Your task to perform on an android device: Open wifi settings Image 0: 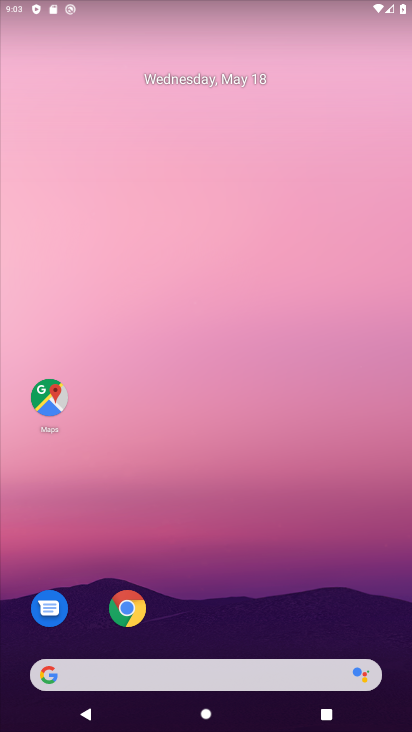
Step 0: drag from (28, 508) to (156, 165)
Your task to perform on an android device: Open wifi settings Image 1: 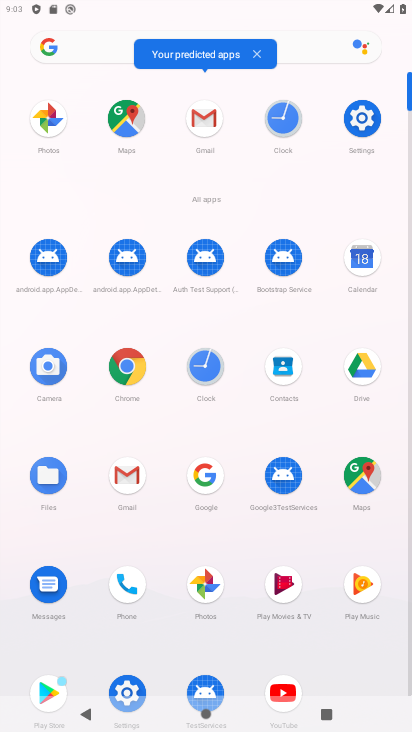
Step 1: click (359, 125)
Your task to perform on an android device: Open wifi settings Image 2: 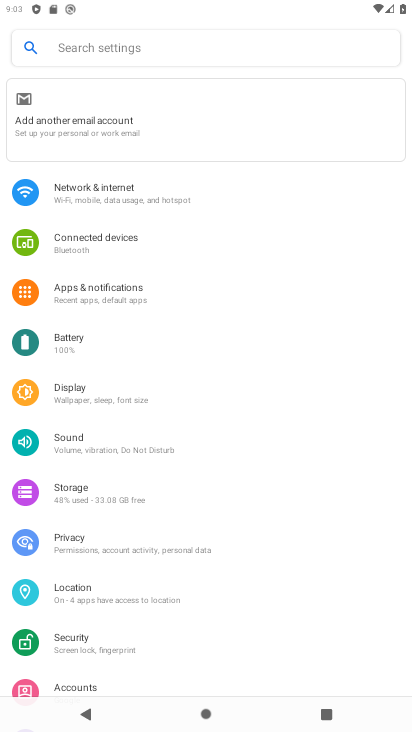
Step 2: click (42, 192)
Your task to perform on an android device: Open wifi settings Image 3: 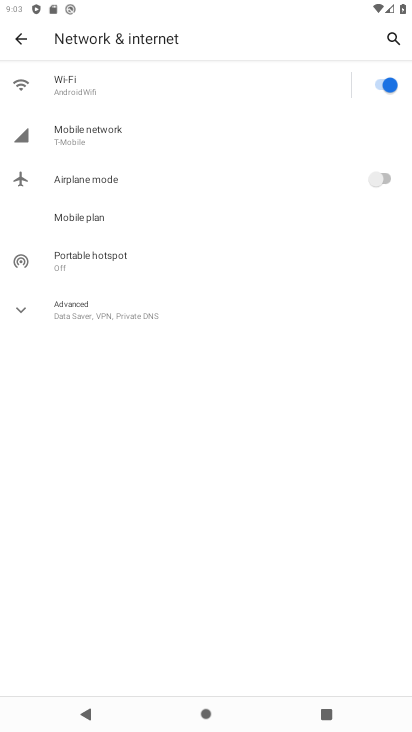
Step 3: click (136, 89)
Your task to perform on an android device: Open wifi settings Image 4: 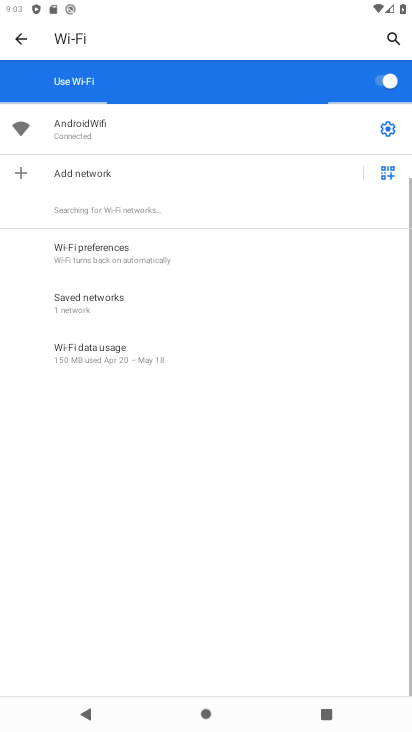
Step 4: click (387, 121)
Your task to perform on an android device: Open wifi settings Image 5: 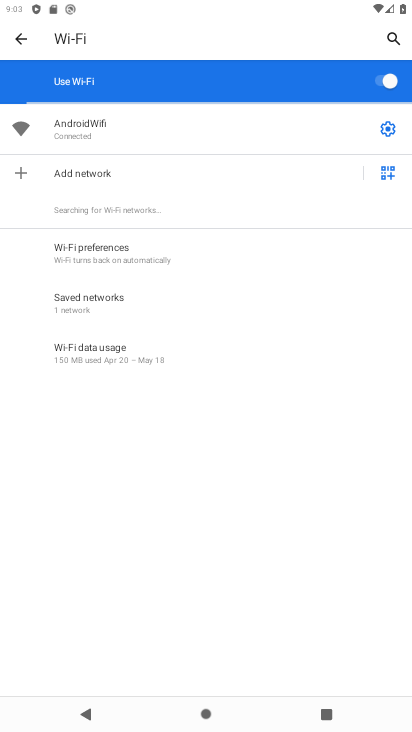
Step 5: click (377, 129)
Your task to perform on an android device: Open wifi settings Image 6: 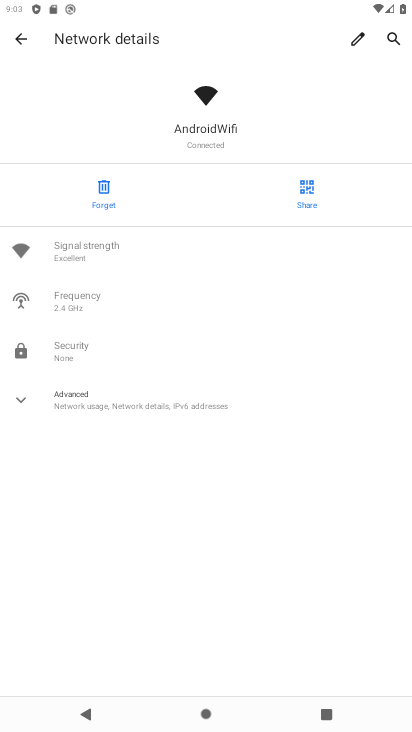
Step 6: task complete